Your task to perform on an android device: Go to eBay Image 0: 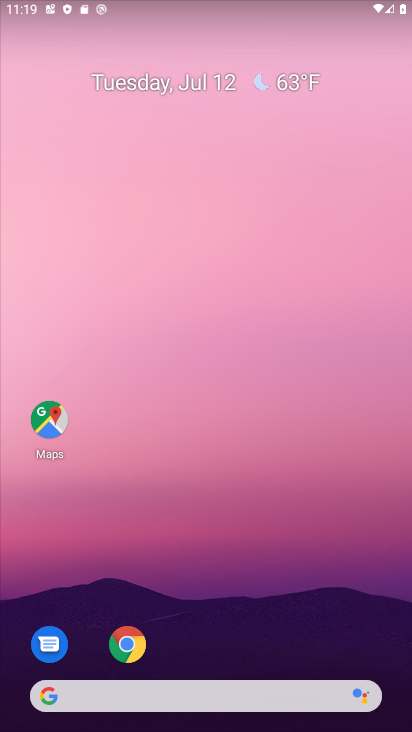
Step 0: click (126, 645)
Your task to perform on an android device: Go to eBay Image 1: 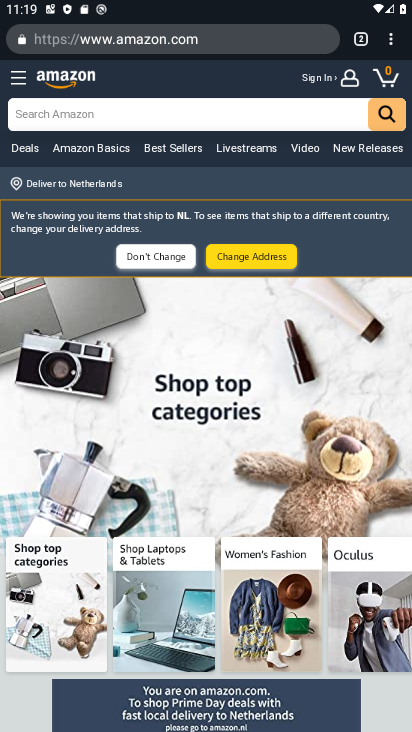
Step 1: click (258, 37)
Your task to perform on an android device: Go to eBay Image 2: 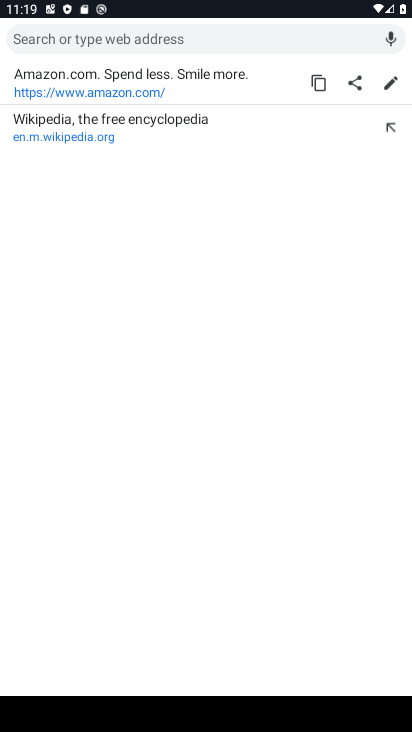
Step 2: type "eBay"
Your task to perform on an android device: Go to eBay Image 3: 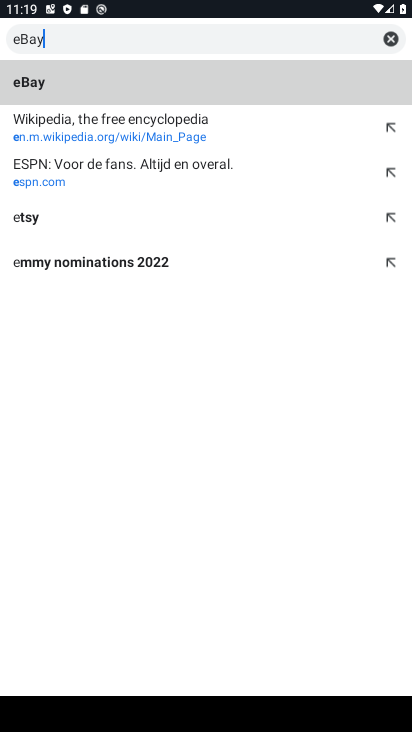
Step 3: type ""
Your task to perform on an android device: Go to eBay Image 4: 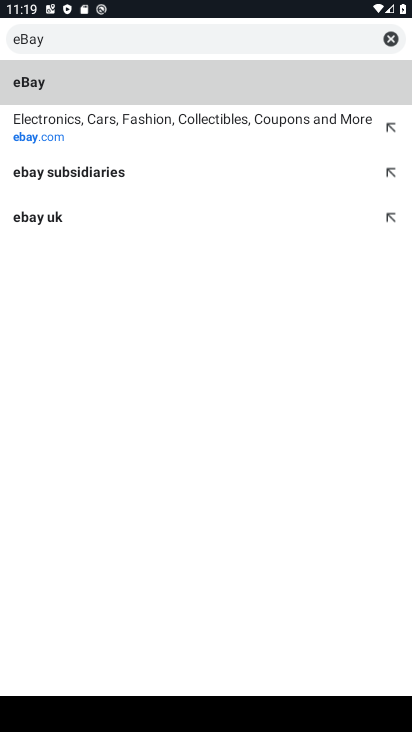
Step 4: click (91, 86)
Your task to perform on an android device: Go to eBay Image 5: 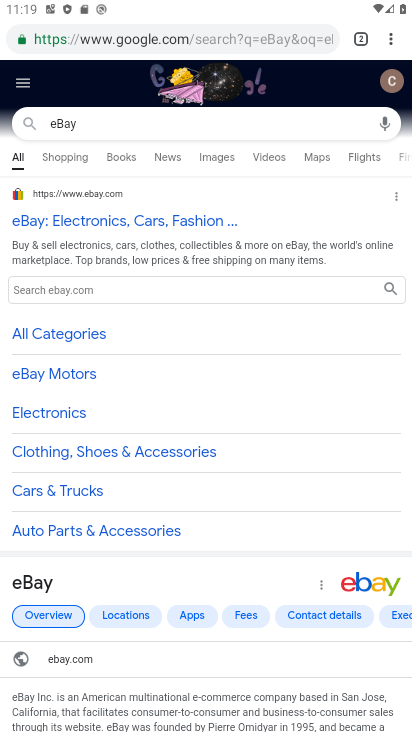
Step 5: click (157, 218)
Your task to perform on an android device: Go to eBay Image 6: 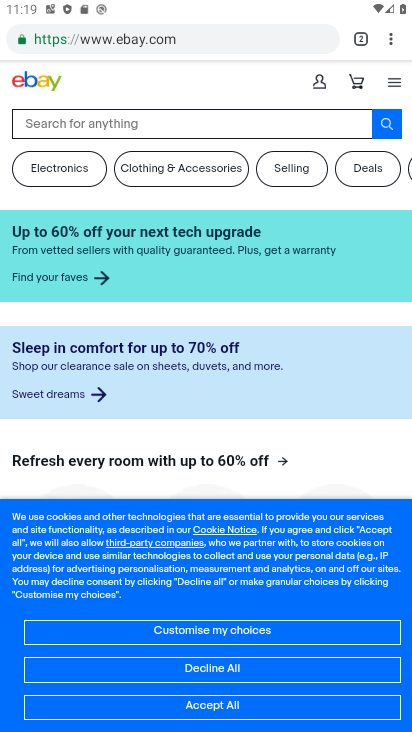
Step 6: task complete